Your task to perform on an android device: Open Google Chrome Image 0: 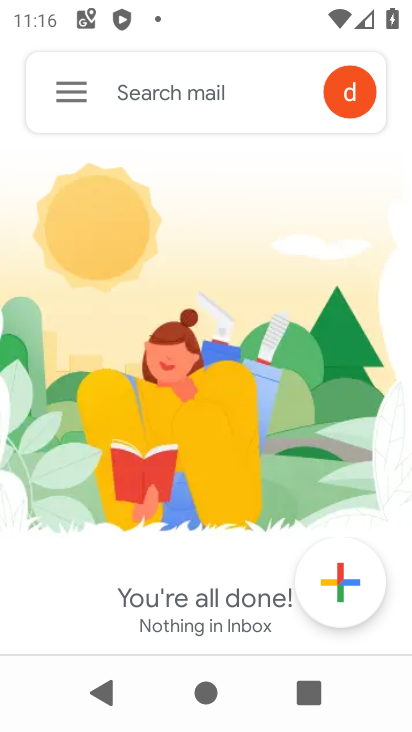
Step 0: press home button
Your task to perform on an android device: Open Google Chrome Image 1: 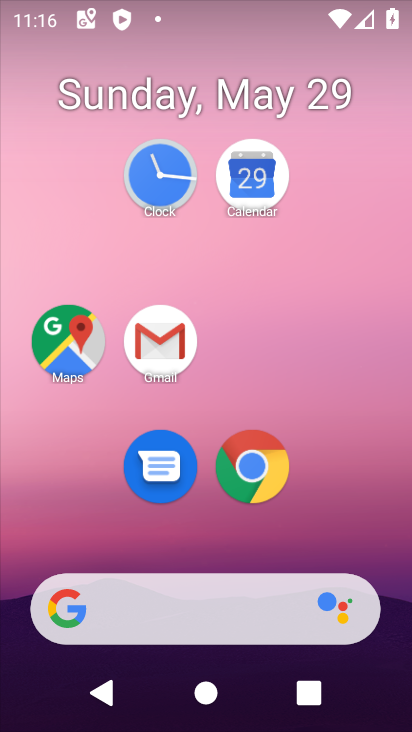
Step 1: click (238, 473)
Your task to perform on an android device: Open Google Chrome Image 2: 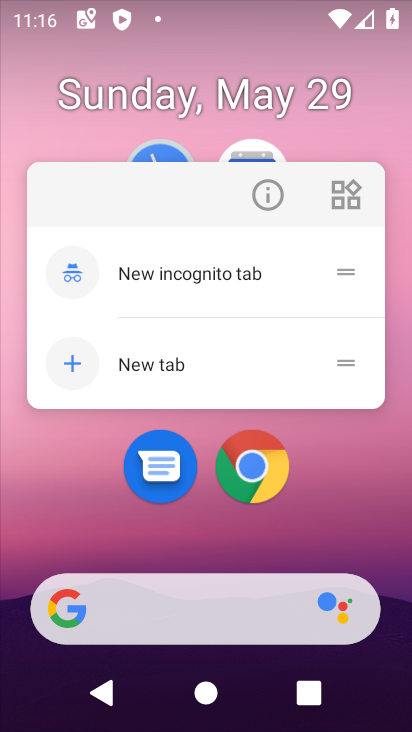
Step 2: click (253, 493)
Your task to perform on an android device: Open Google Chrome Image 3: 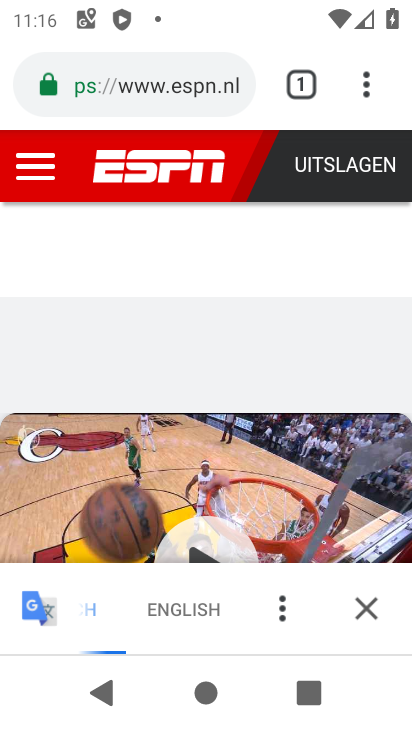
Step 3: task complete